Your task to perform on an android device: turn on priority inbox in the gmail app Image 0: 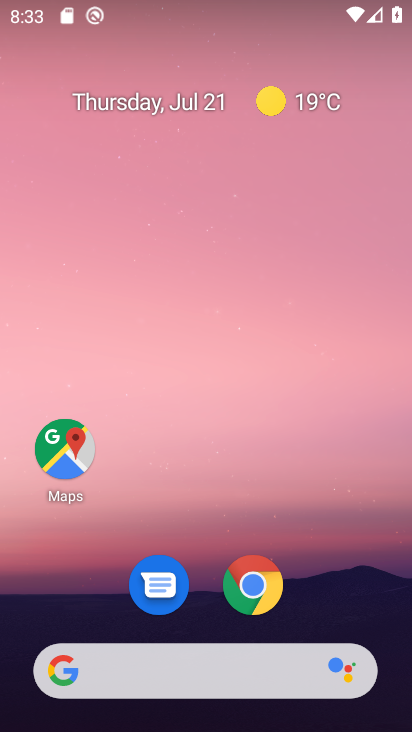
Step 0: drag from (324, 577) to (296, 80)
Your task to perform on an android device: turn on priority inbox in the gmail app Image 1: 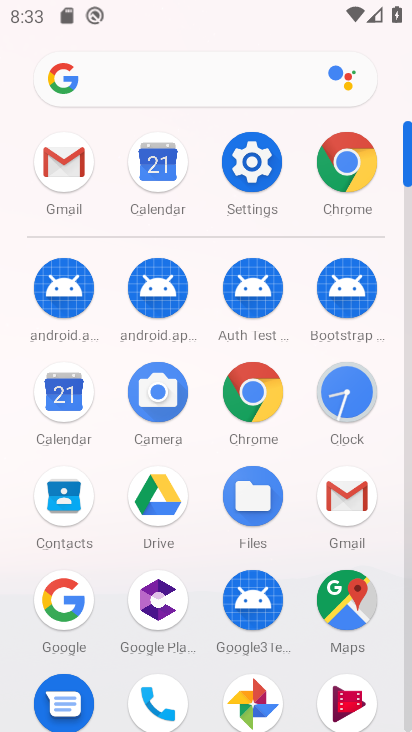
Step 1: click (341, 486)
Your task to perform on an android device: turn on priority inbox in the gmail app Image 2: 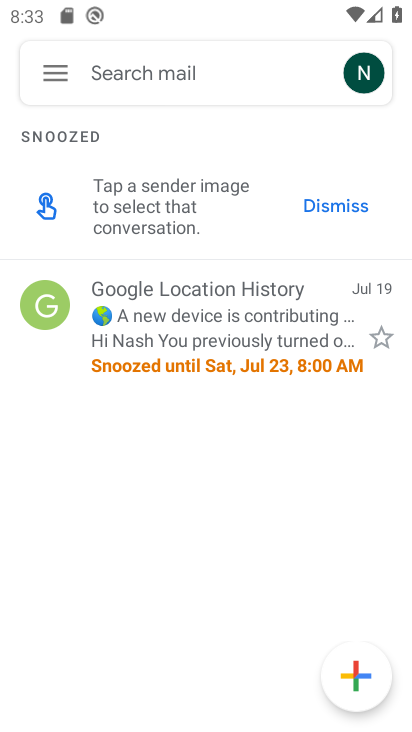
Step 2: click (49, 67)
Your task to perform on an android device: turn on priority inbox in the gmail app Image 3: 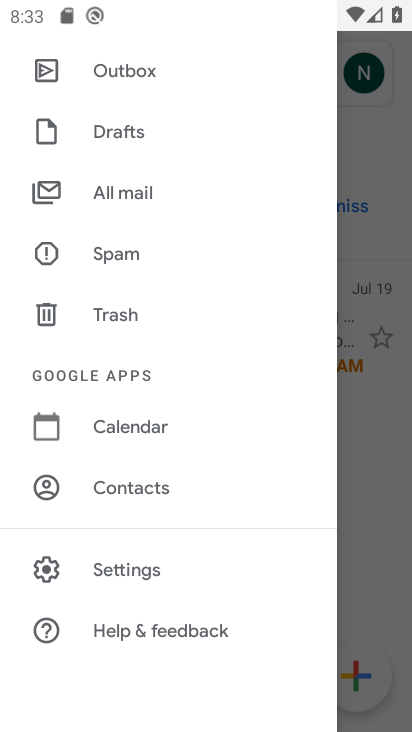
Step 3: click (135, 566)
Your task to perform on an android device: turn on priority inbox in the gmail app Image 4: 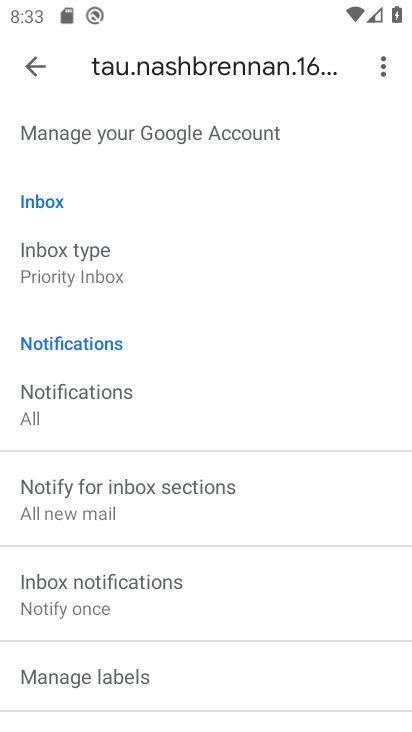
Step 4: task complete